Your task to perform on an android device: open app "Speedtest by Ookla" Image 0: 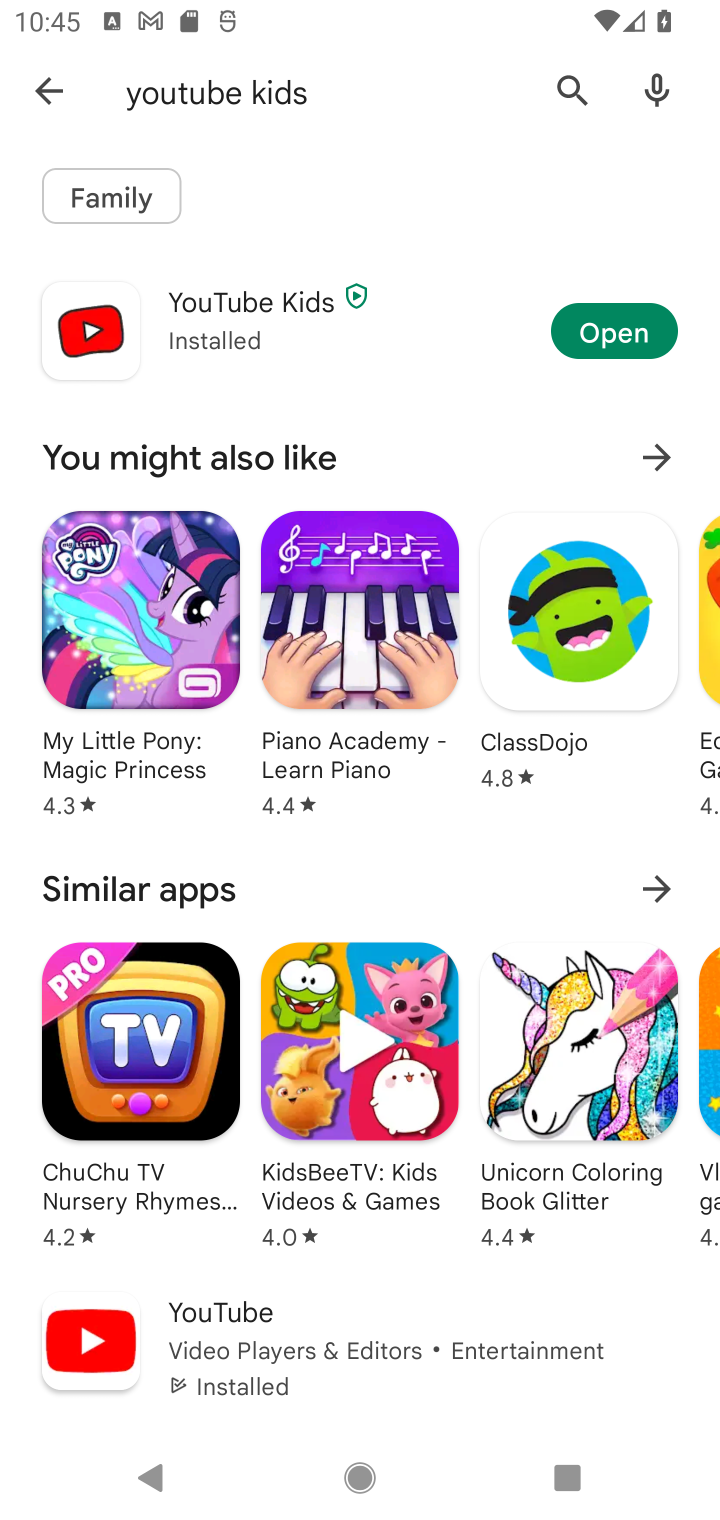
Step 0: press home button
Your task to perform on an android device: open app "Speedtest by Ookla" Image 1: 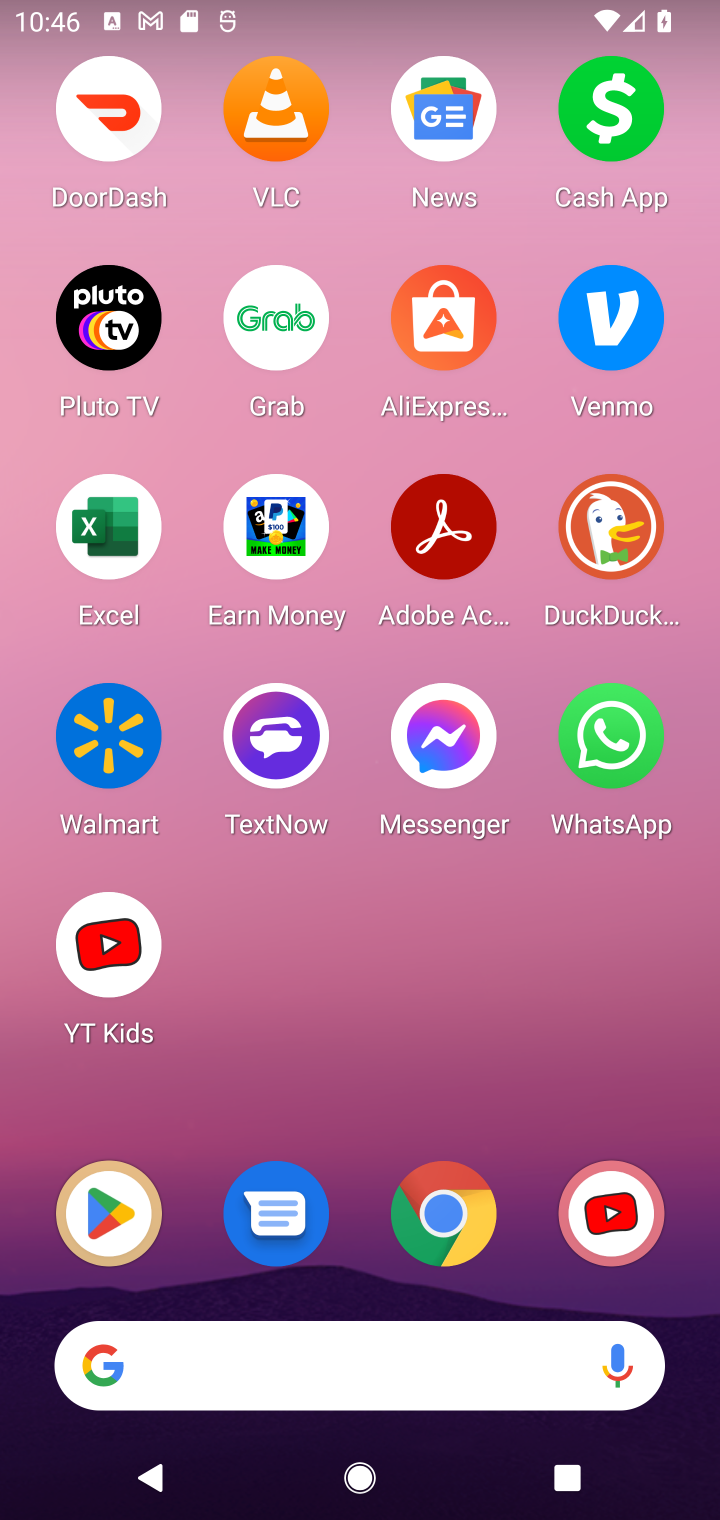
Step 1: click (384, 449)
Your task to perform on an android device: open app "Speedtest by Ookla" Image 2: 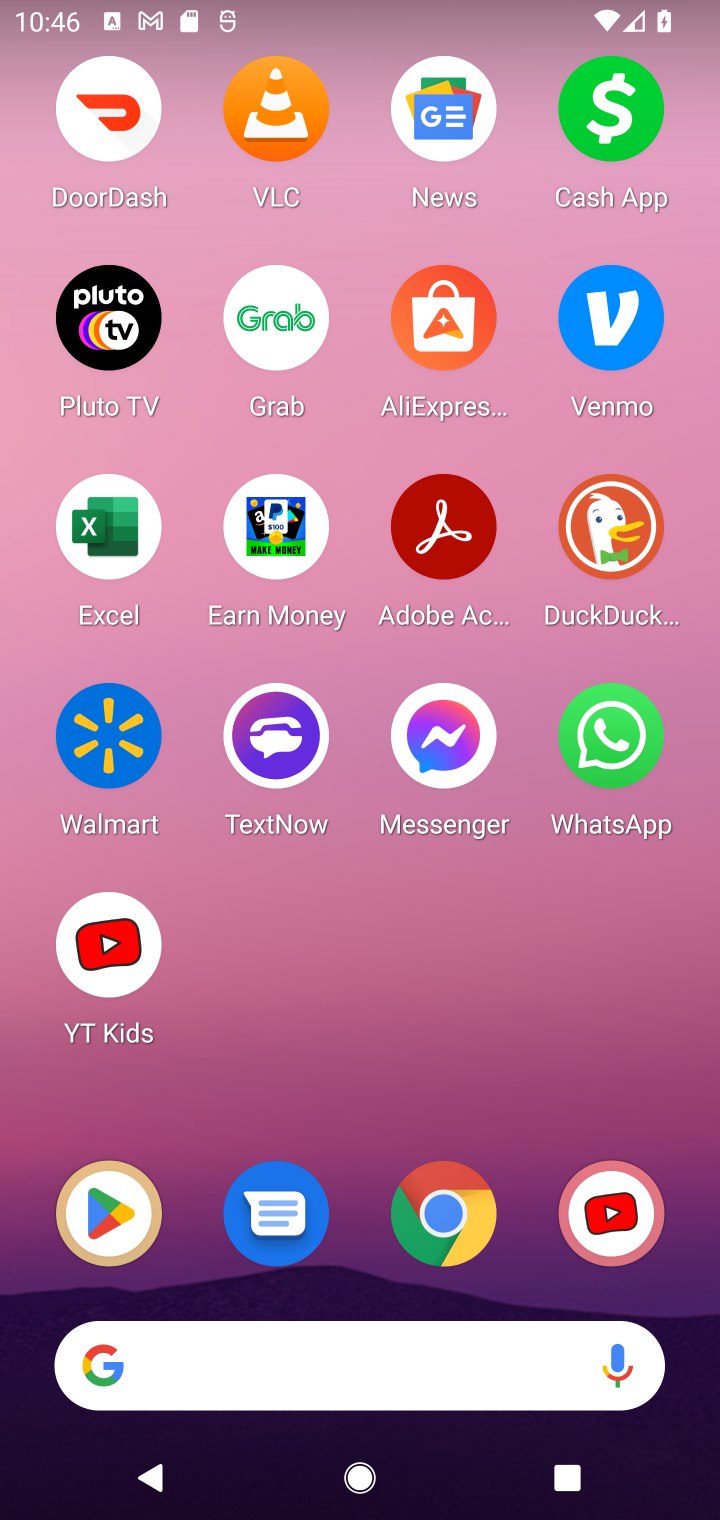
Step 2: click (97, 1201)
Your task to perform on an android device: open app "Speedtest by Ookla" Image 3: 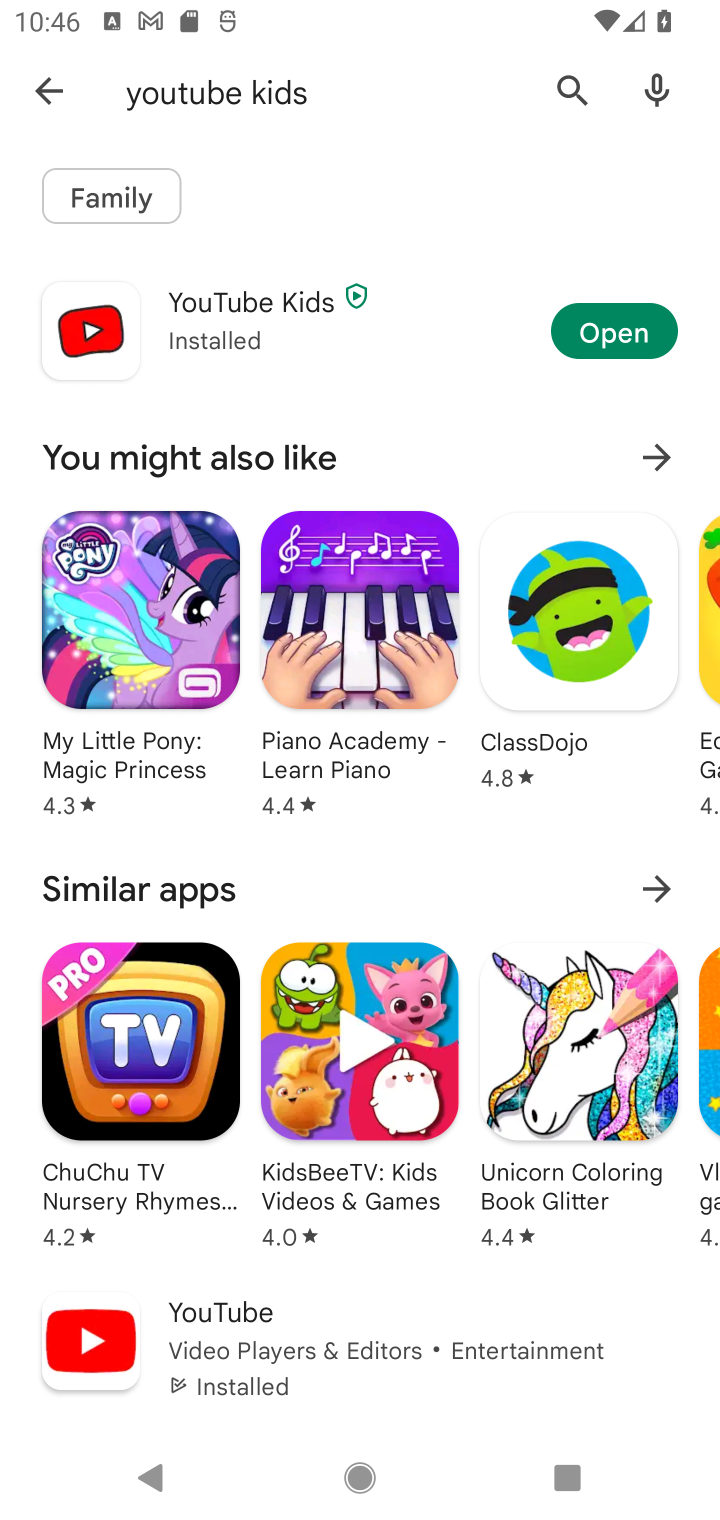
Step 3: click (37, 90)
Your task to perform on an android device: open app "Speedtest by Ookla" Image 4: 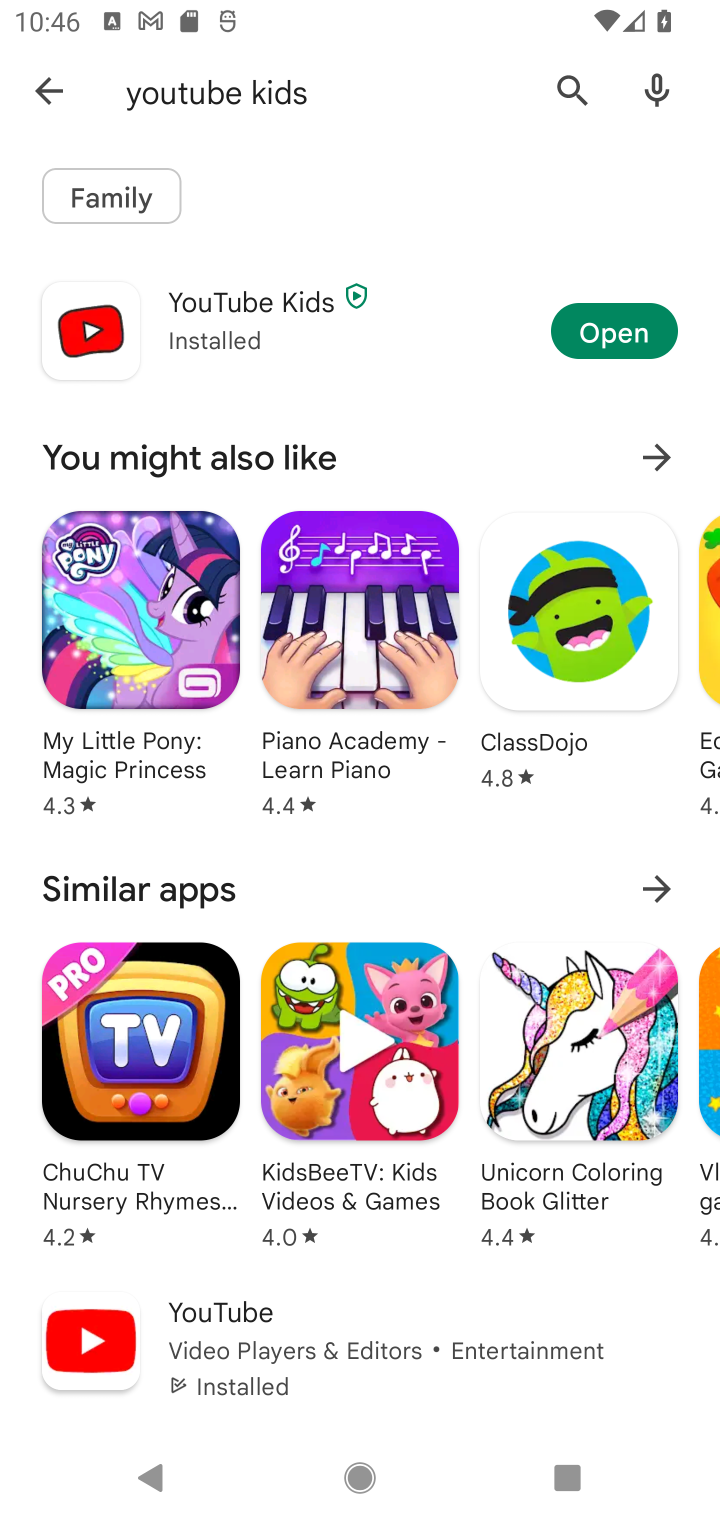
Step 4: click (45, 81)
Your task to perform on an android device: open app "Speedtest by Ookla" Image 5: 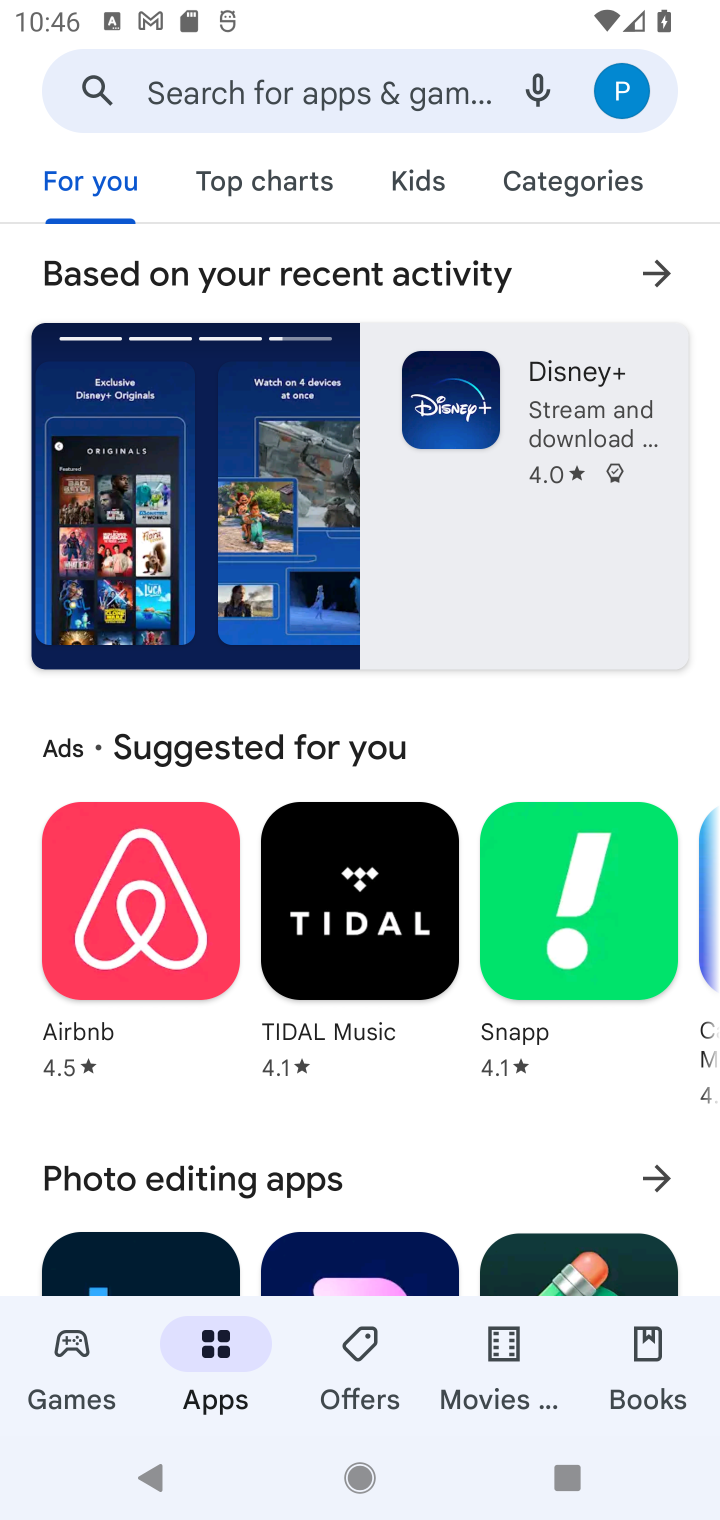
Step 5: click (254, 88)
Your task to perform on an android device: open app "Speedtest by Ookla" Image 6: 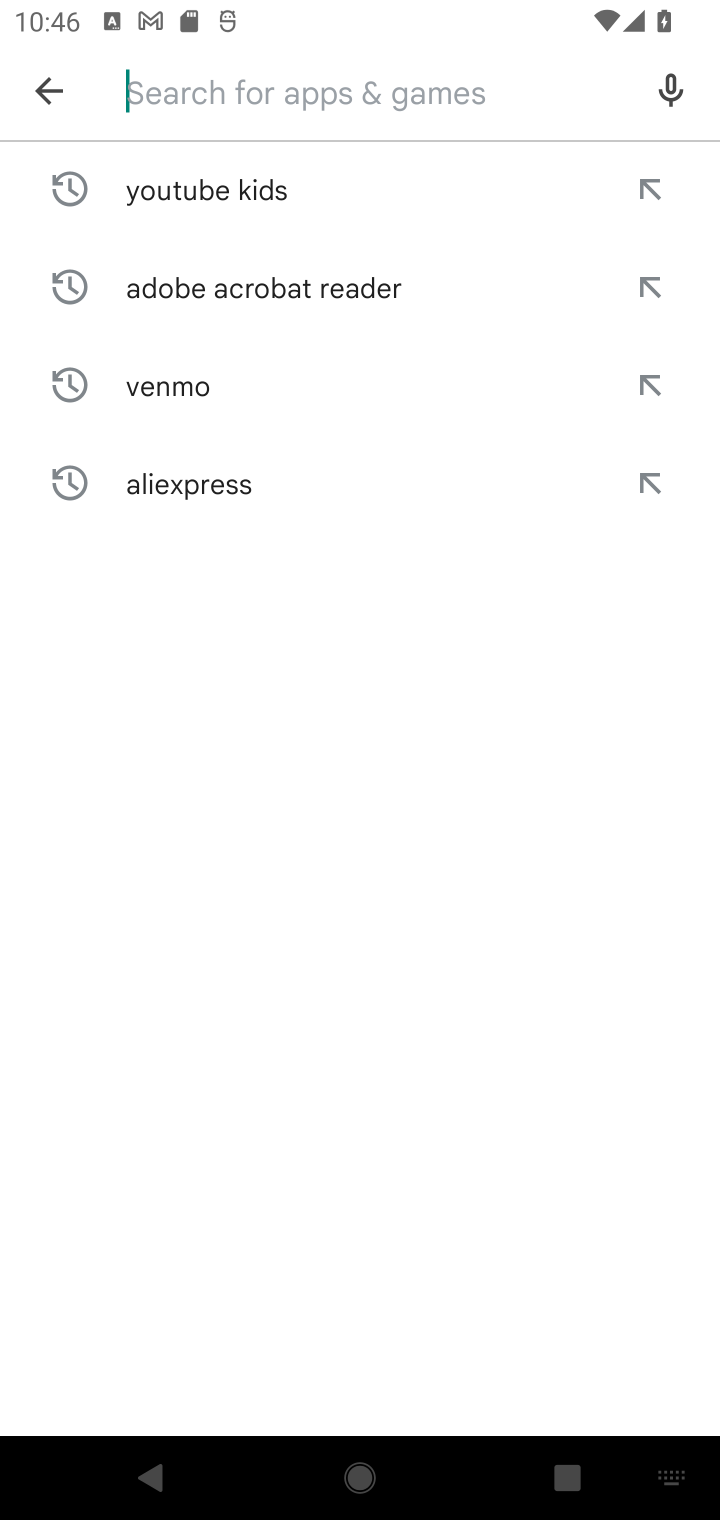
Step 6: type "Speedtest by Ookla"
Your task to perform on an android device: open app "Speedtest by Ookla" Image 7: 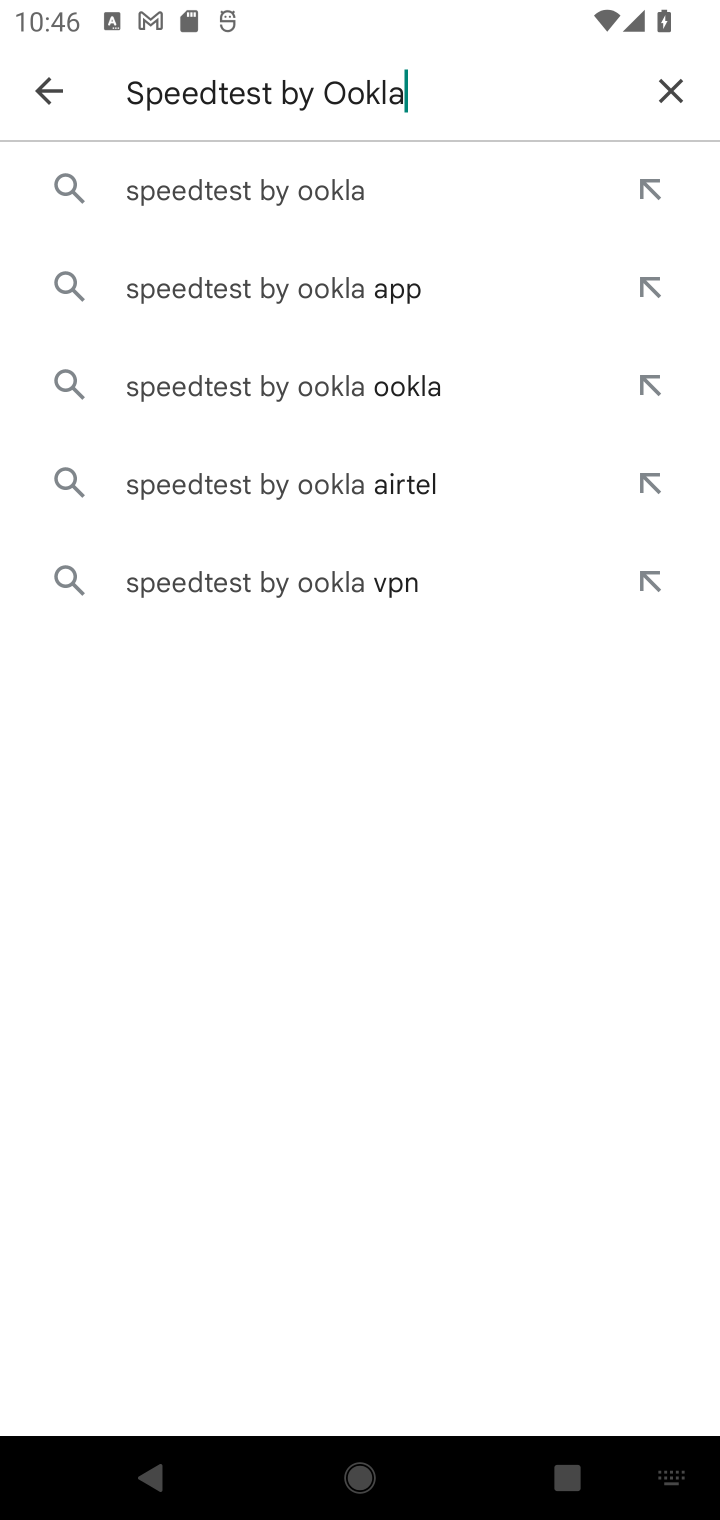
Step 7: click (276, 190)
Your task to perform on an android device: open app "Speedtest by Ookla" Image 8: 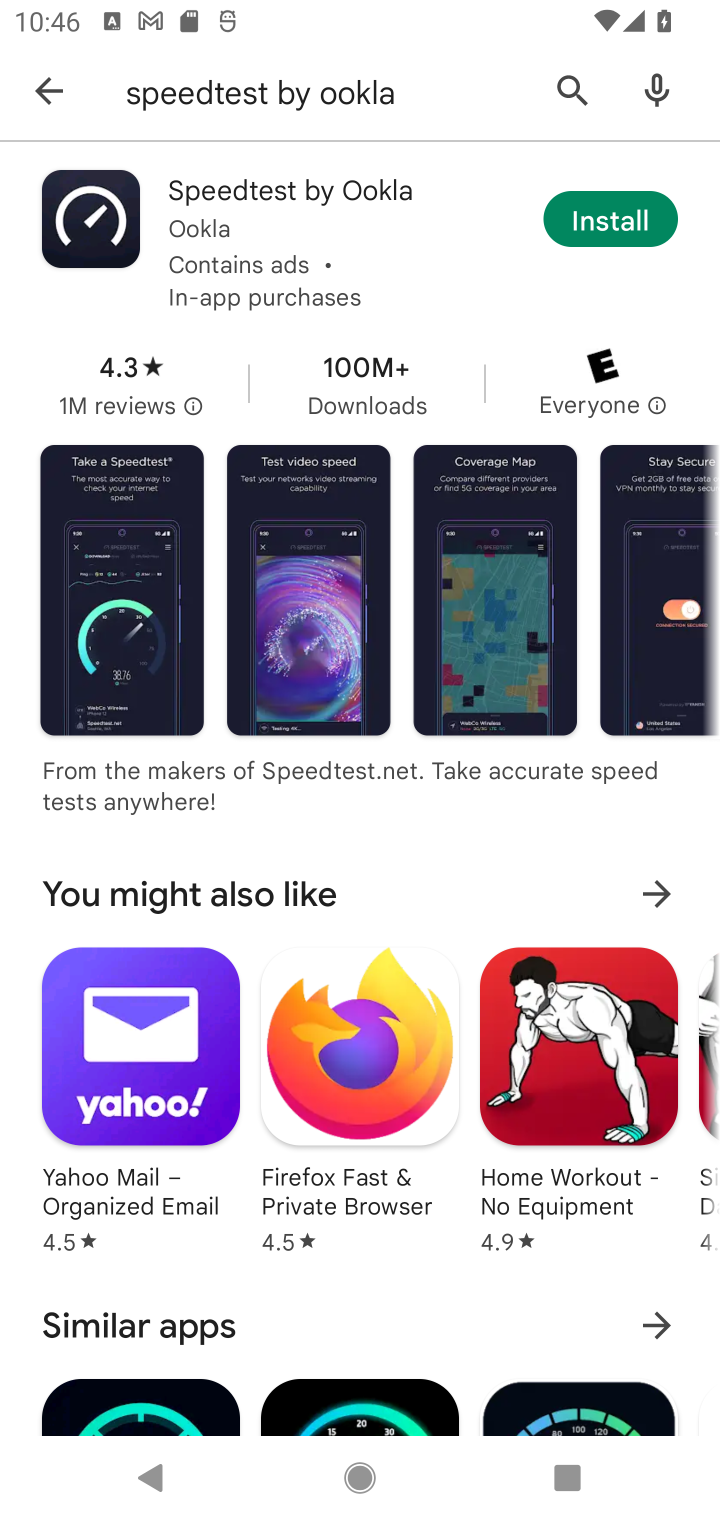
Step 8: click (629, 223)
Your task to perform on an android device: open app "Speedtest by Ookla" Image 9: 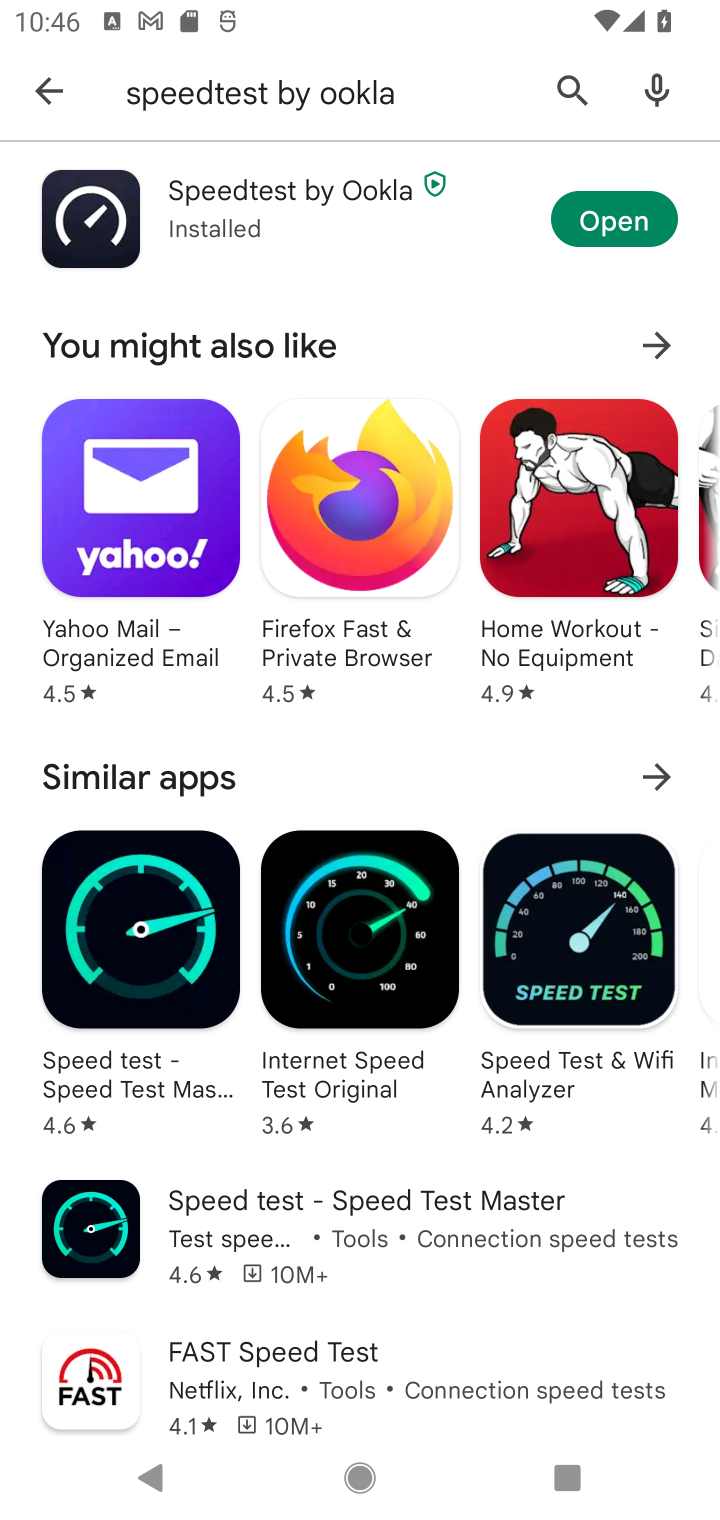
Step 9: click (604, 225)
Your task to perform on an android device: open app "Speedtest by Ookla" Image 10: 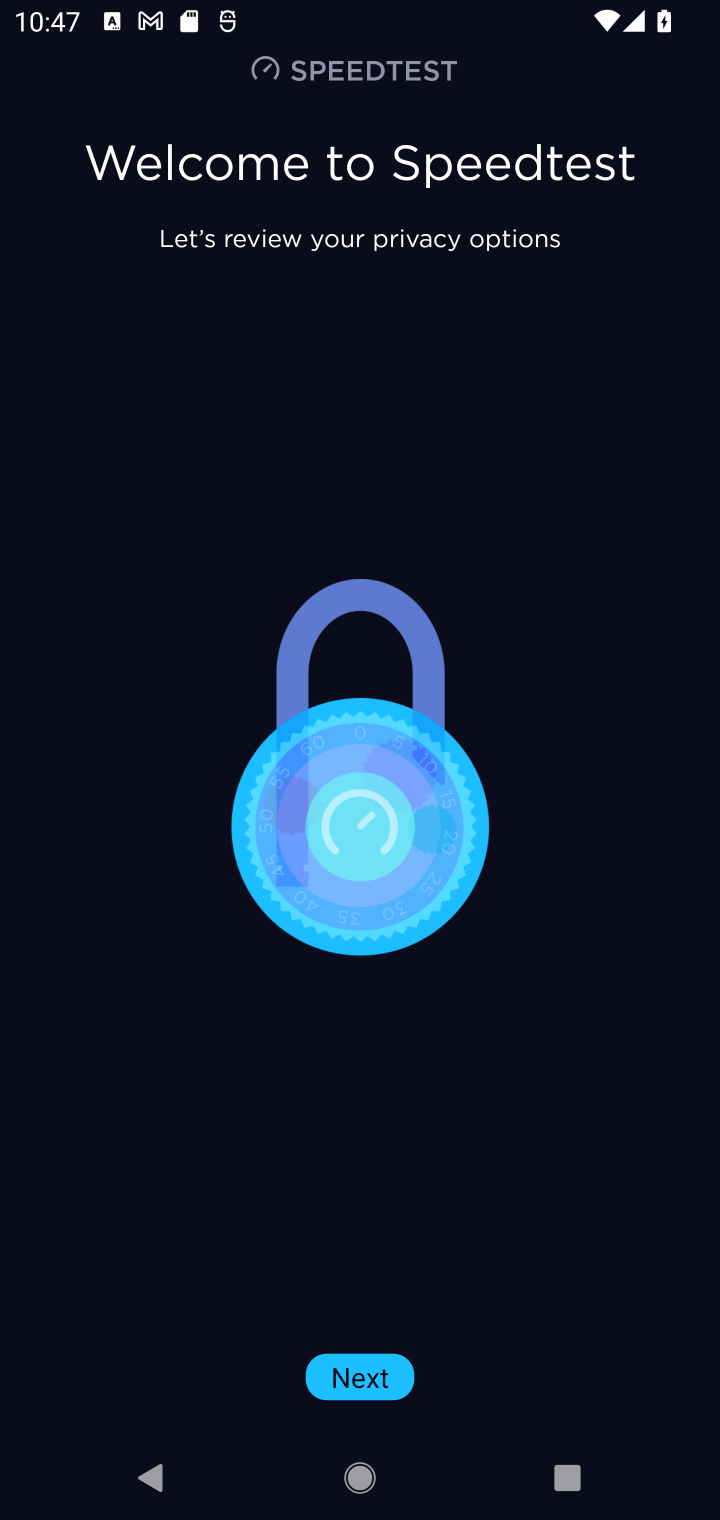
Step 10: task complete